Your task to perform on an android device: Check the weather Image 0: 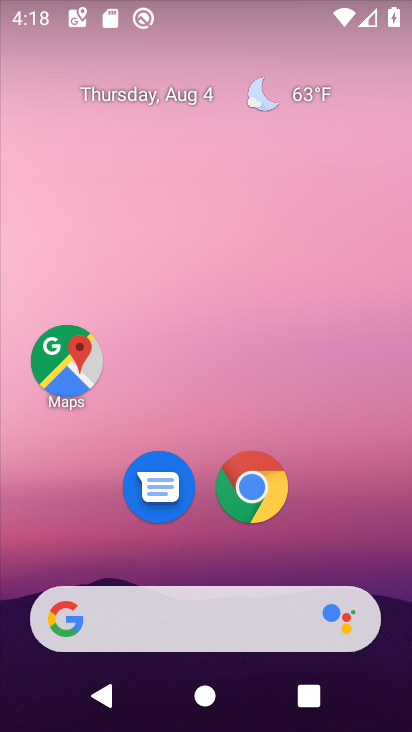
Step 0: click (196, 626)
Your task to perform on an android device: Check the weather Image 1: 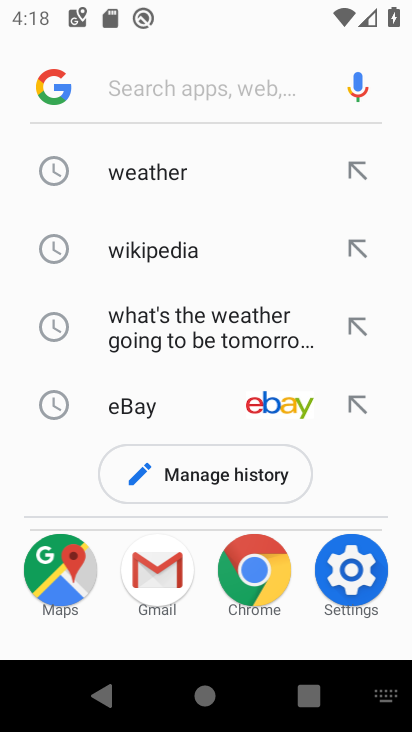
Step 1: click (136, 173)
Your task to perform on an android device: Check the weather Image 2: 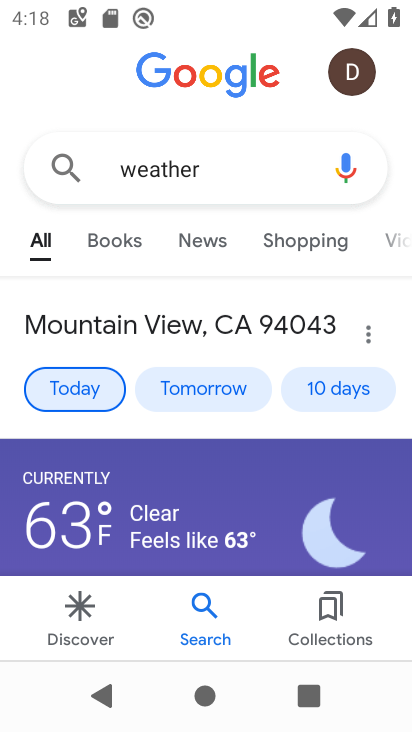
Step 2: task complete